Your task to perform on an android device: turn off location Image 0: 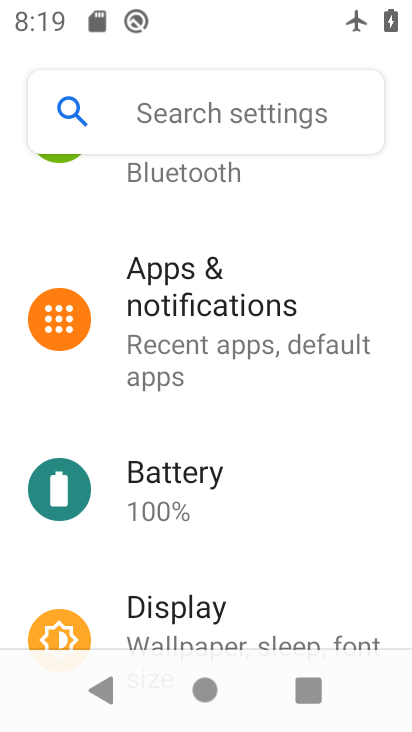
Step 0: press home button
Your task to perform on an android device: turn off location Image 1: 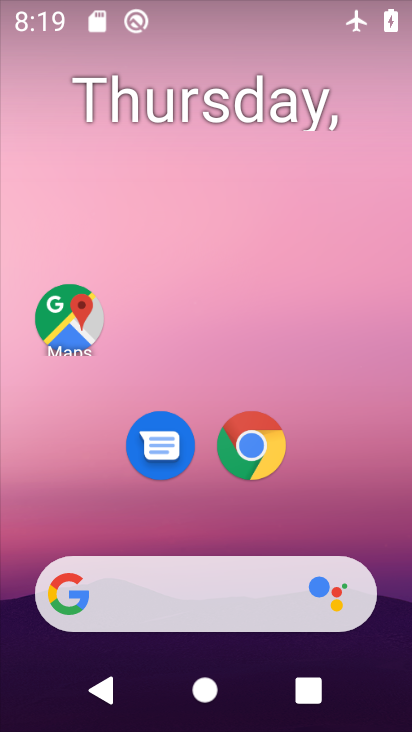
Step 1: drag from (346, 521) to (281, 87)
Your task to perform on an android device: turn off location Image 2: 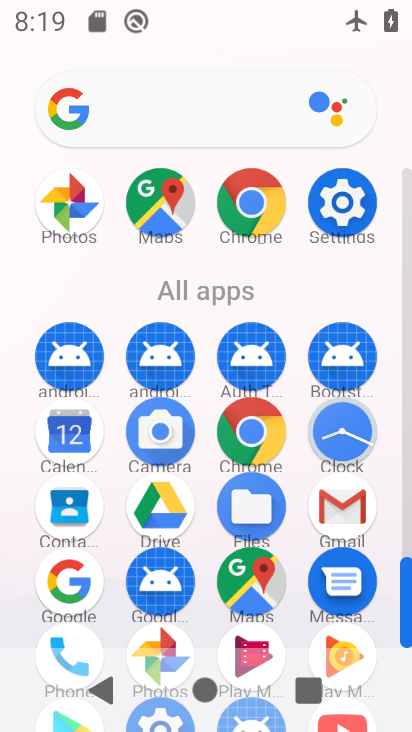
Step 2: click (334, 209)
Your task to perform on an android device: turn off location Image 3: 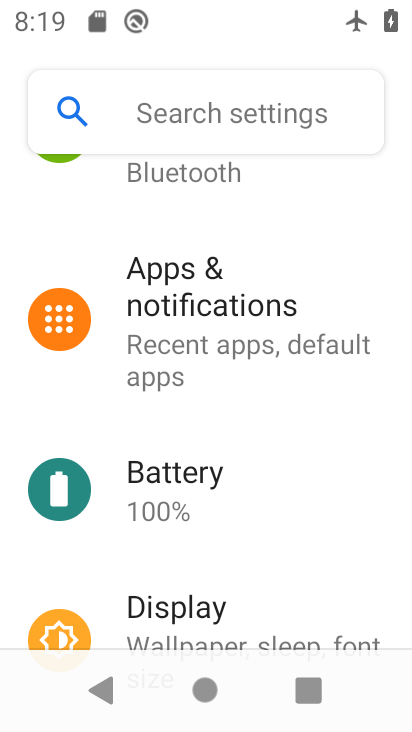
Step 3: drag from (244, 598) to (227, 227)
Your task to perform on an android device: turn off location Image 4: 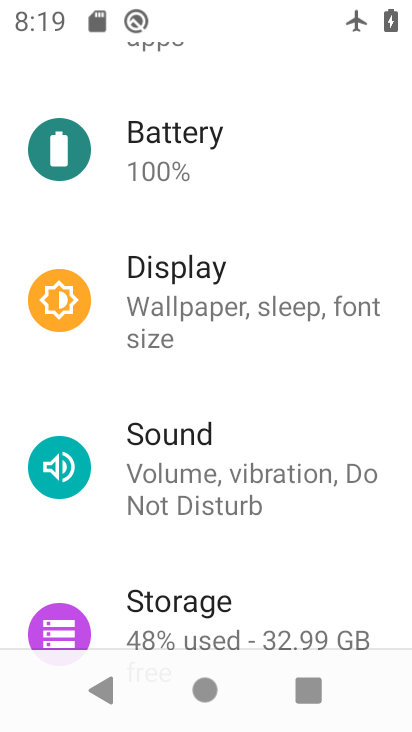
Step 4: drag from (235, 594) to (254, 194)
Your task to perform on an android device: turn off location Image 5: 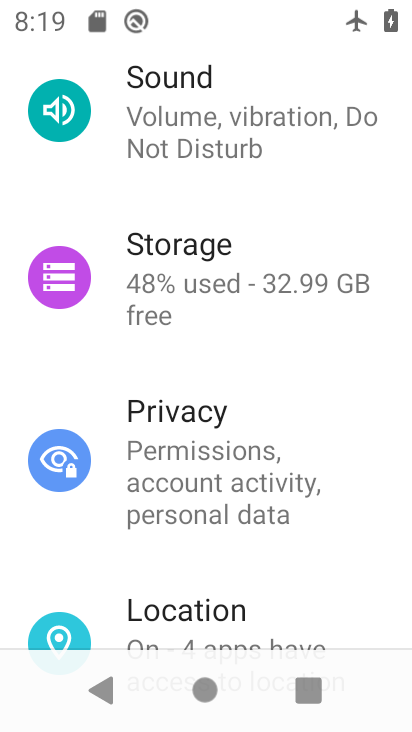
Step 5: click (233, 622)
Your task to perform on an android device: turn off location Image 6: 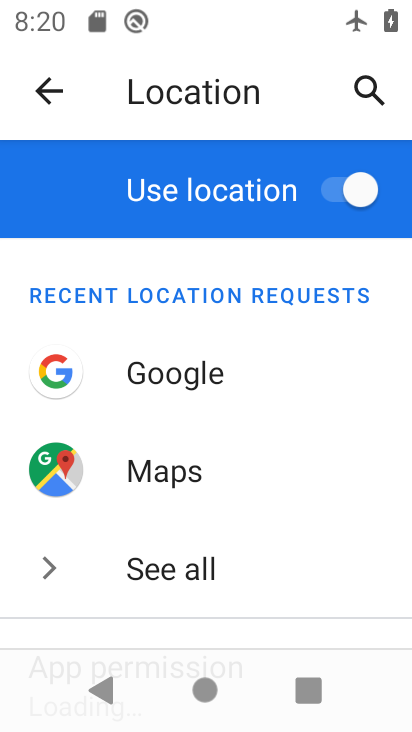
Step 6: click (358, 195)
Your task to perform on an android device: turn off location Image 7: 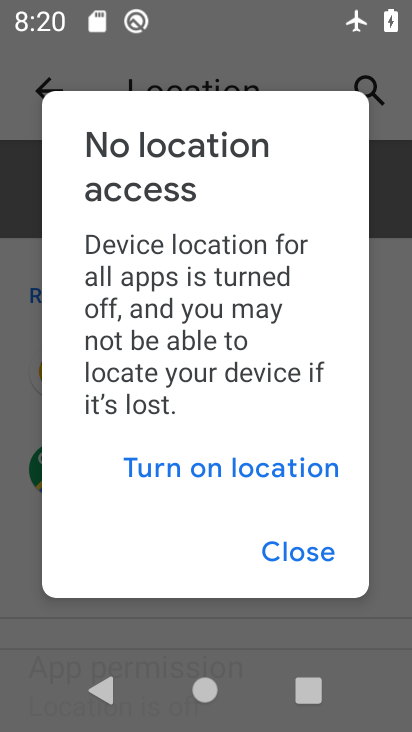
Step 7: click (301, 550)
Your task to perform on an android device: turn off location Image 8: 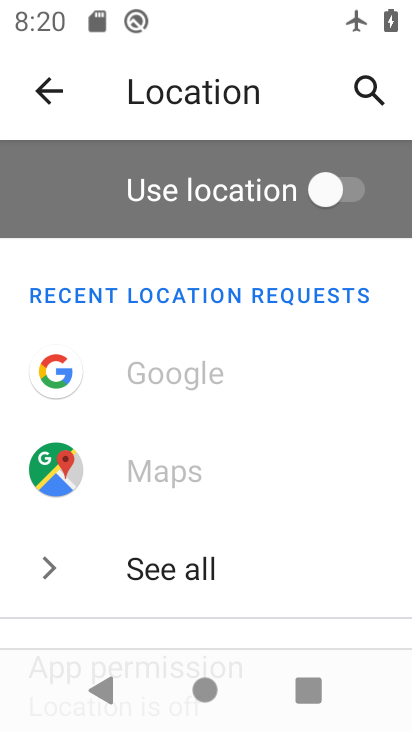
Step 8: task complete